Your task to perform on an android device: Go to settings Image 0: 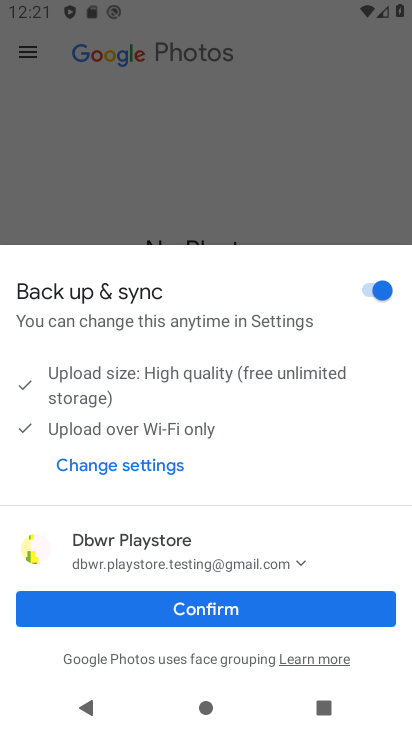
Step 0: press home button
Your task to perform on an android device: Go to settings Image 1: 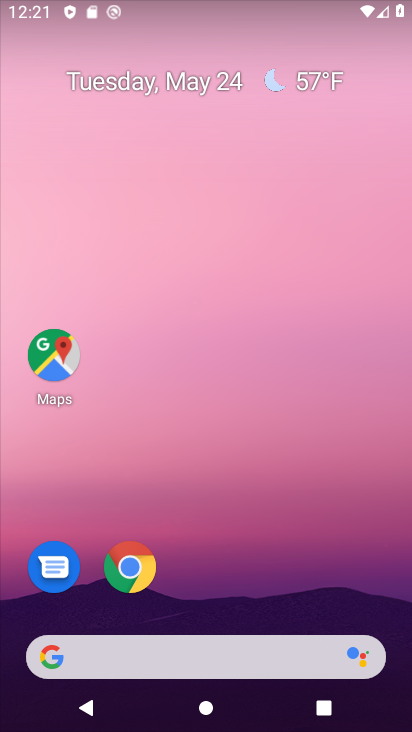
Step 1: drag from (168, 669) to (207, 131)
Your task to perform on an android device: Go to settings Image 2: 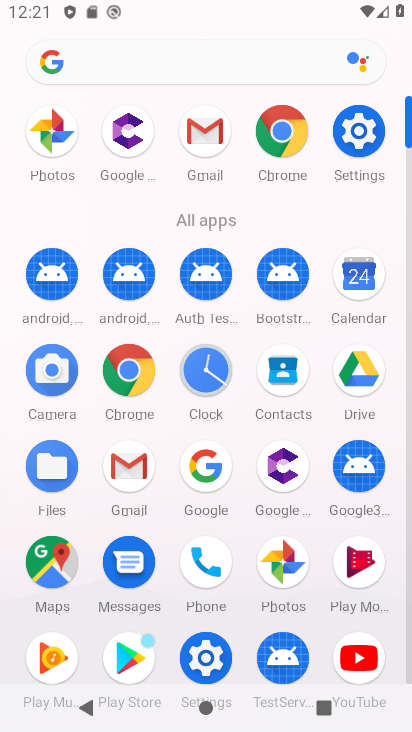
Step 2: click (342, 142)
Your task to perform on an android device: Go to settings Image 3: 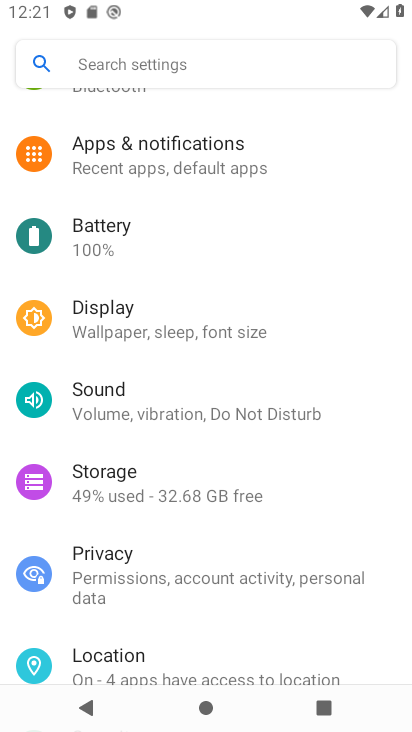
Step 3: task complete